Your task to perform on an android device: Open Android settings Image 0: 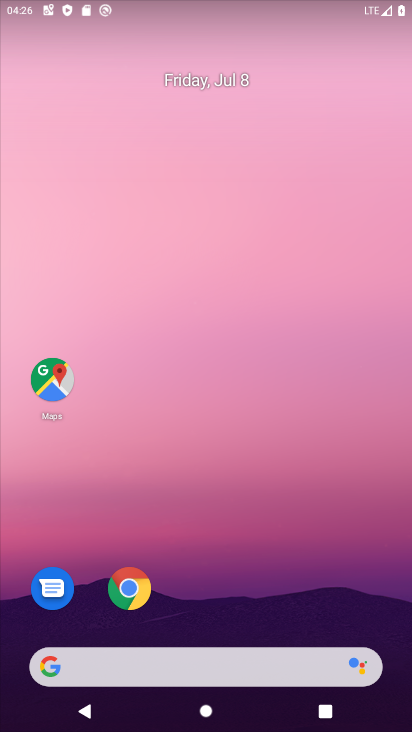
Step 0: drag from (198, 478) to (198, 226)
Your task to perform on an android device: Open Android settings Image 1: 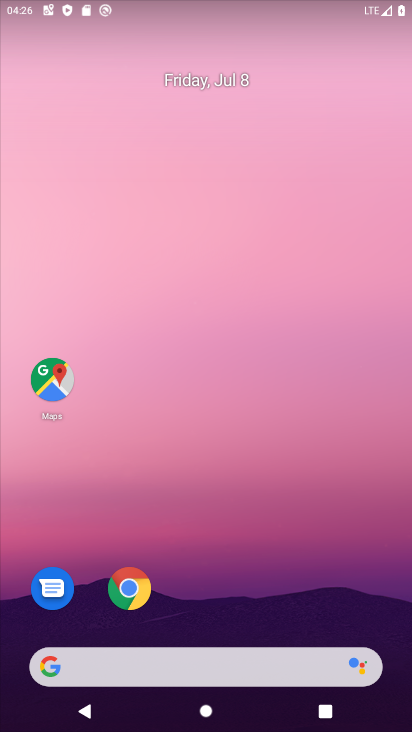
Step 1: drag from (186, 551) to (158, 162)
Your task to perform on an android device: Open Android settings Image 2: 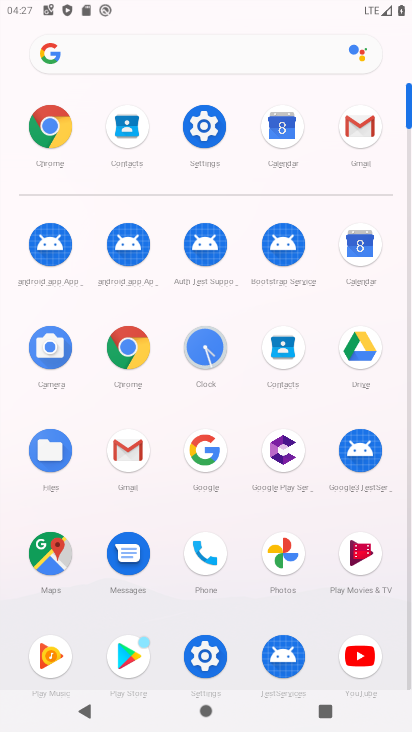
Step 2: click (199, 125)
Your task to perform on an android device: Open Android settings Image 3: 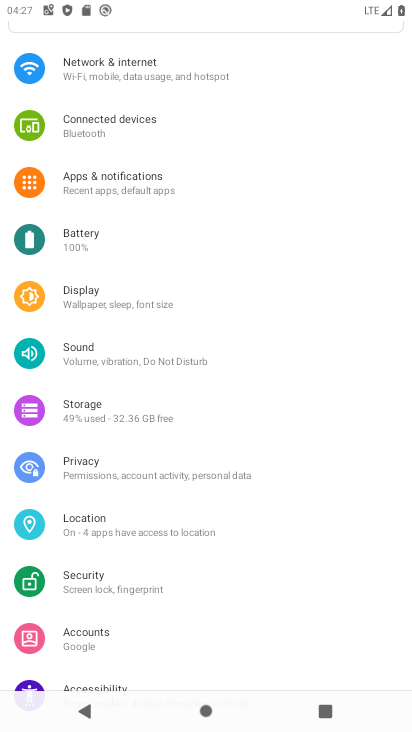
Step 3: drag from (109, 582) to (183, 285)
Your task to perform on an android device: Open Android settings Image 4: 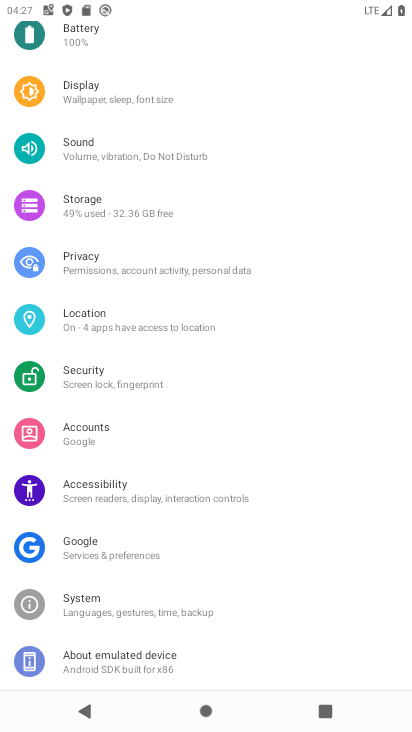
Step 4: click (109, 664)
Your task to perform on an android device: Open Android settings Image 5: 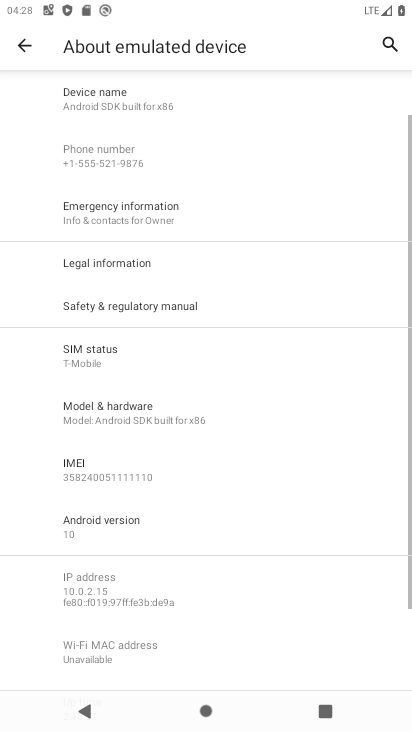
Step 5: drag from (158, 632) to (291, 216)
Your task to perform on an android device: Open Android settings Image 6: 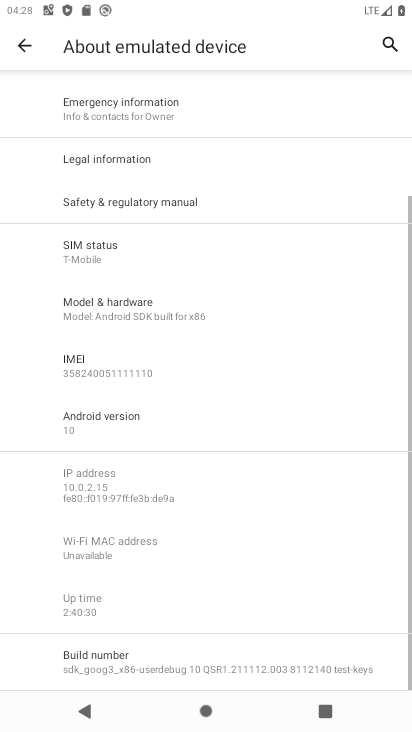
Step 6: click (112, 422)
Your task to perform on an android device: Open Android settings Image 7: 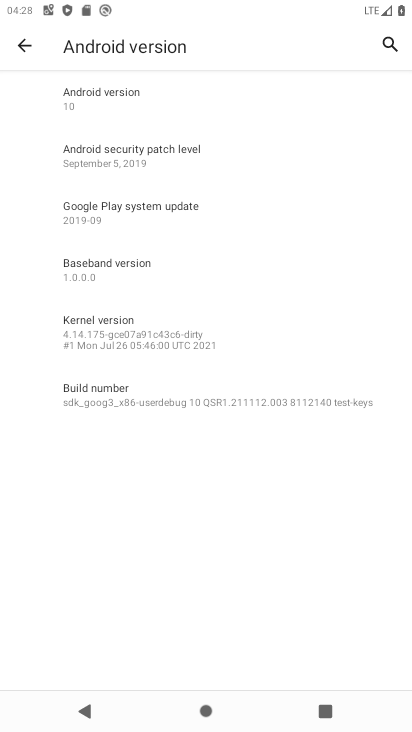
Step 7: task complete